Your task to perform on an android device: Open the Play Movies app and select the watchlist tab. Image 0: 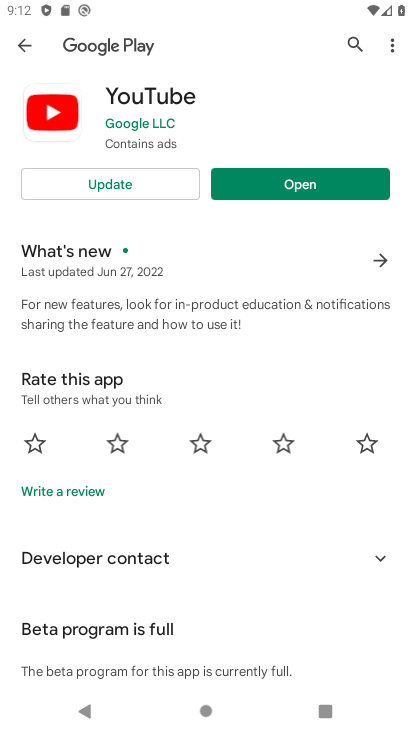
Step 0: drag from (269, 670) to (244, 279)
Your task to perform on an android device: Open the Play Movies app and select the watchlist tab. Image 1: 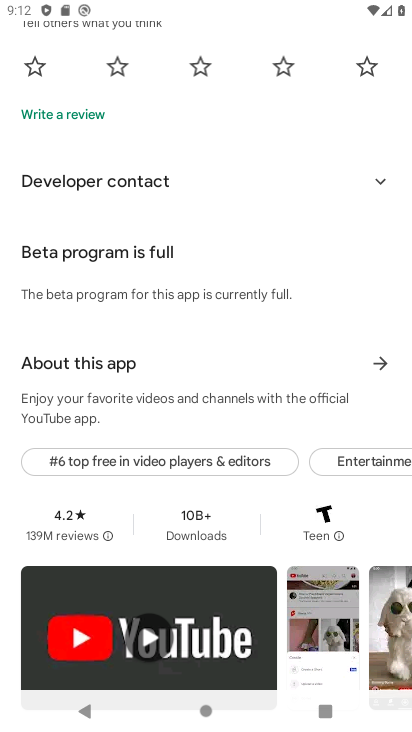
Step 1: press home button
Your task to perform on an android device: Open the Play Movies app and select the watchlist tab. Image 2: 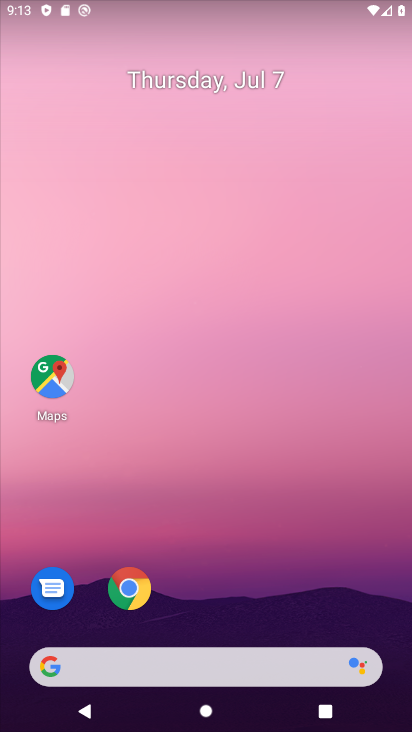
Step 2: drag from (276, 660) to (283, 139)
Your task to perform on an android device: Open the Play Movies app and select the watchlist tab. Image 3: 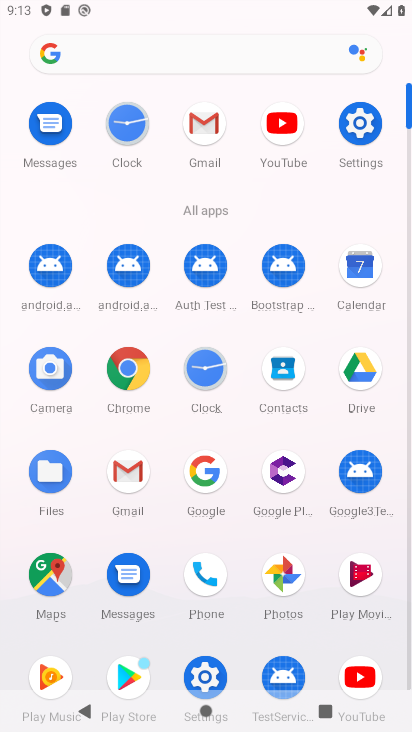
Step 3: drag from (266, 650) to (193, 29)
Your task to perform on an android device: Open the Play Movies app and select the watchlist tab. Image 4: 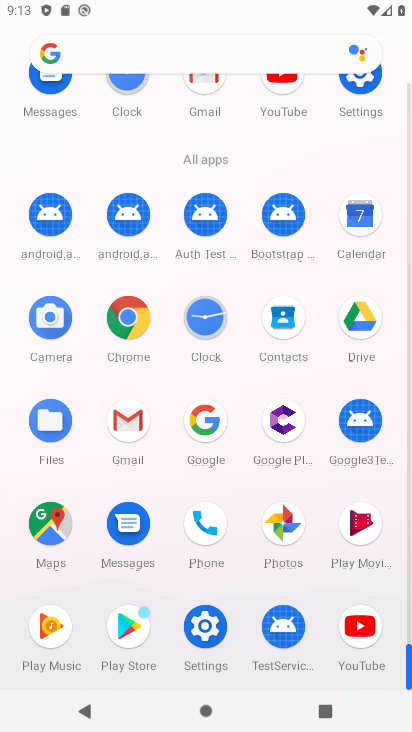
Step 4: click (359, 527)
Your task to perform on an android device: Open the Play Movies app and select the watchlist tab. Image 5: 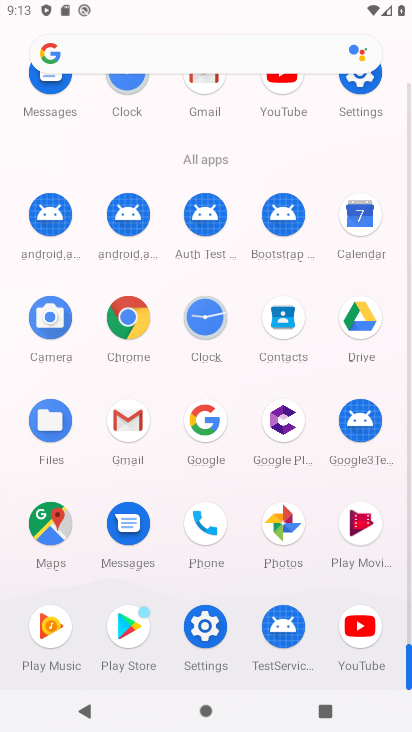
Step 5: click (359, 527)
Your task to perform on an android device: Open the Play Movies app and select the watchlist tab. Image 6: 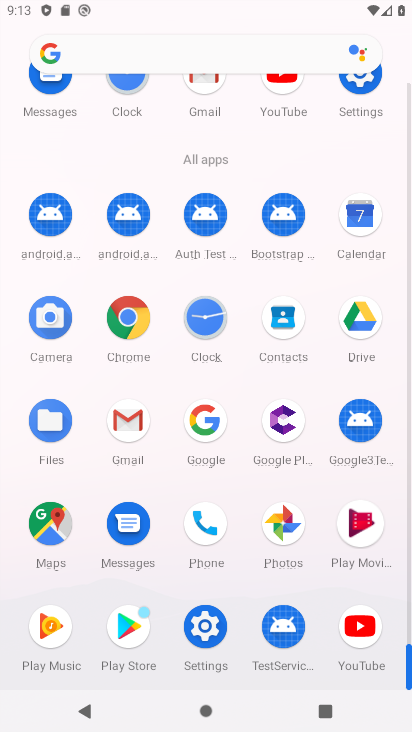
Step 6: click (359, 526)
Your task to perform on an android device: Open the Play Movies app and select the watchlist tab. Image 7: 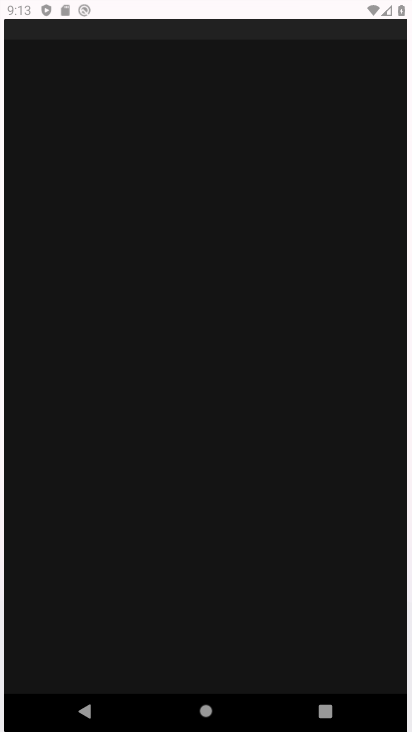
Step 7: click (356, 518)
Your task to perform on an android device: Open the Play Movies app and select the watchlist tab. Image 8: 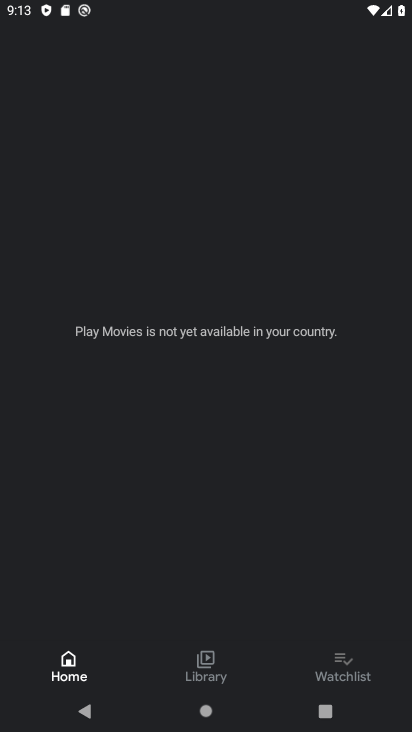
Step 8: click (339, 656)
Your task to perform on an android device: Open the Play Movies app and select the watchlist tab. Image 9: 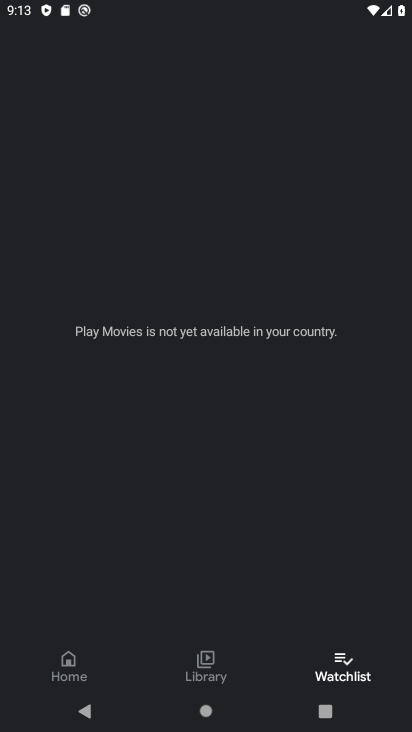
Step 9: click (348, 659)
Your task to perform on an android device: Open the Play Movies app and select the watchlist tab. Image 10: 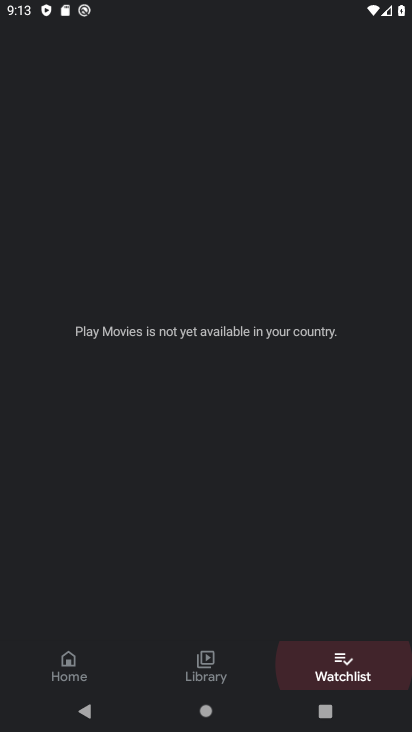
Step 10: click (347, 659)
Your task to perform on an android device: Open the Play Movies app and select the watchlist tab. Image 11: 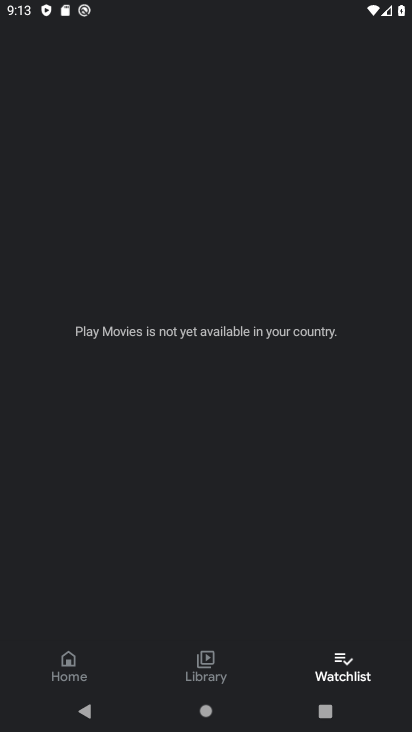
Step 11: click (337, 675)
Your task to perform on an android device: Open the Play Movies app and select the watchlist tab. Image 12: 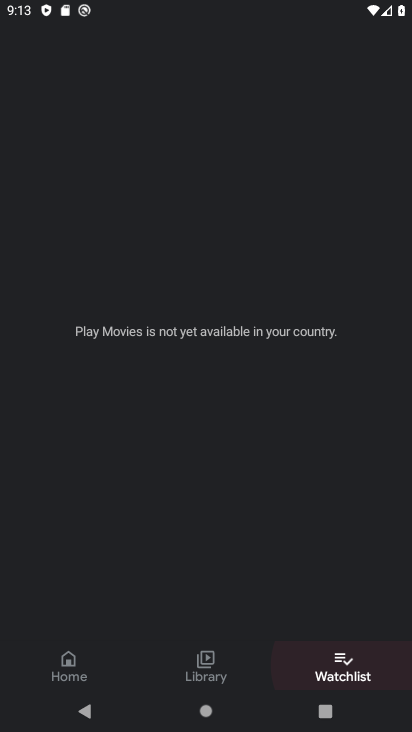
Step 12: click (337, 675)
Your task to perform on an android device: Open the Play Movies app and select the watchlist tab. Image 13: 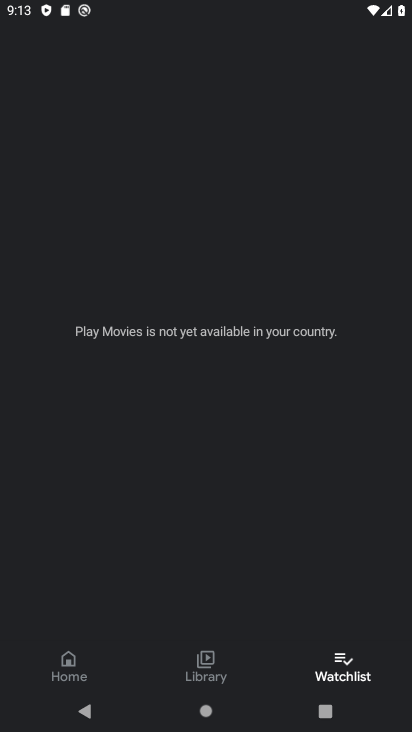
Step 13: click (337, 668)
Your task to perform on an android device: Open the Play Movies app and select the watchlist tab. Image 14: 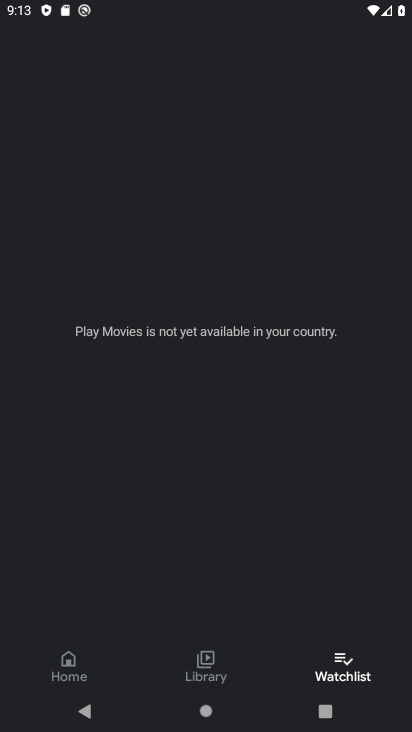
Step 14: task complete